Your task to perform on an android device: uninstall "LinkedIn" Image 0: 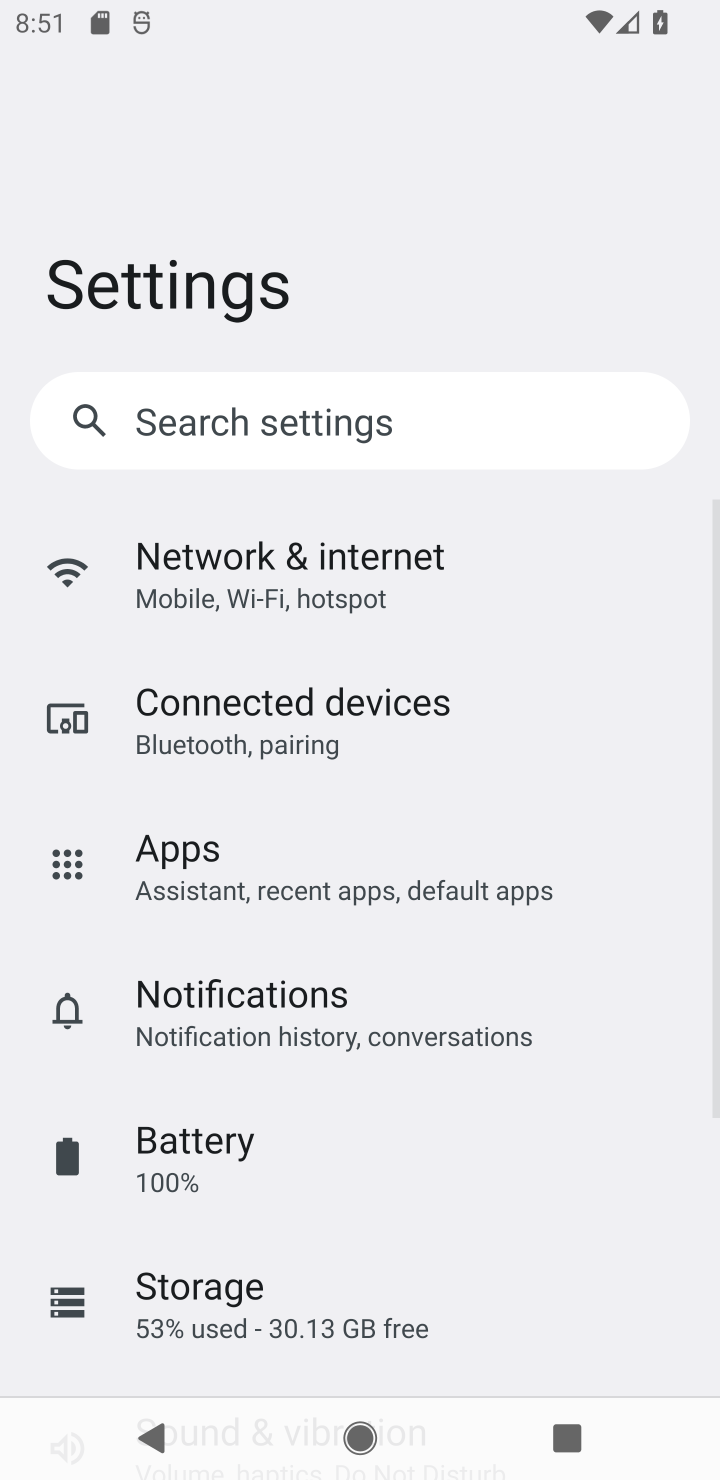
Step 0: press home button
Your task to perform on an android device: uninstall "LinkedIn" Image 1: 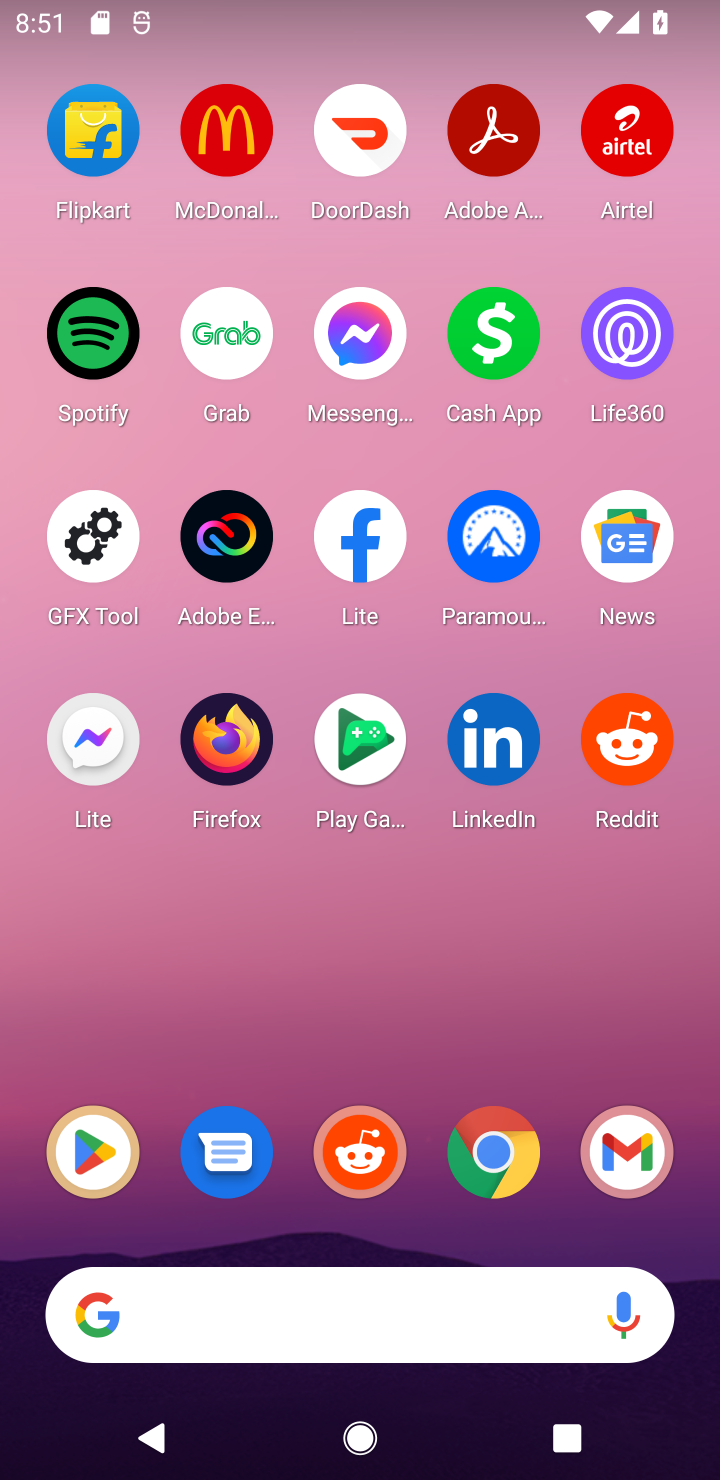
Step 1: click (128, 1176)
Your task to perform on an android device: uninstall "LinkedIn" Image 2: 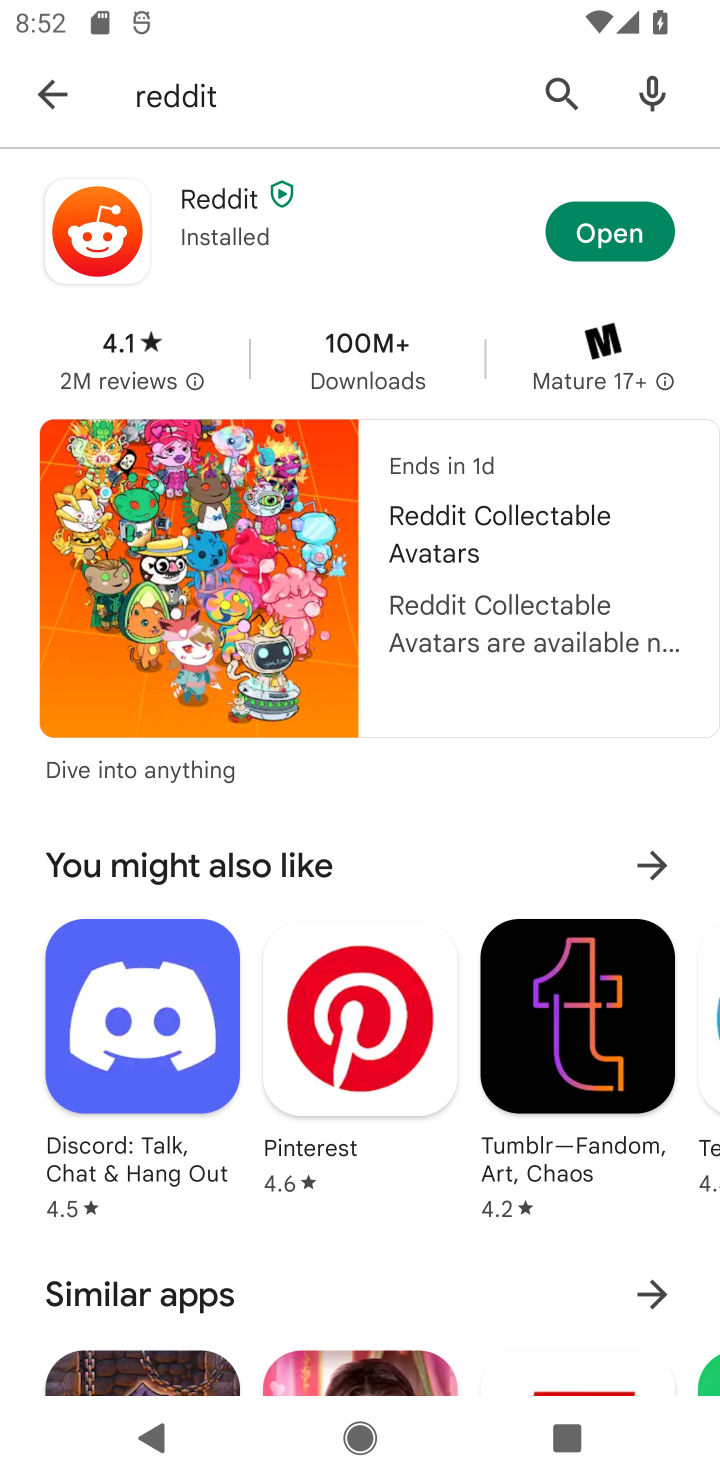
Step 2: click (62, 90)
Your task to perform on an android device: uninstall "LinkedIn" Image 3: 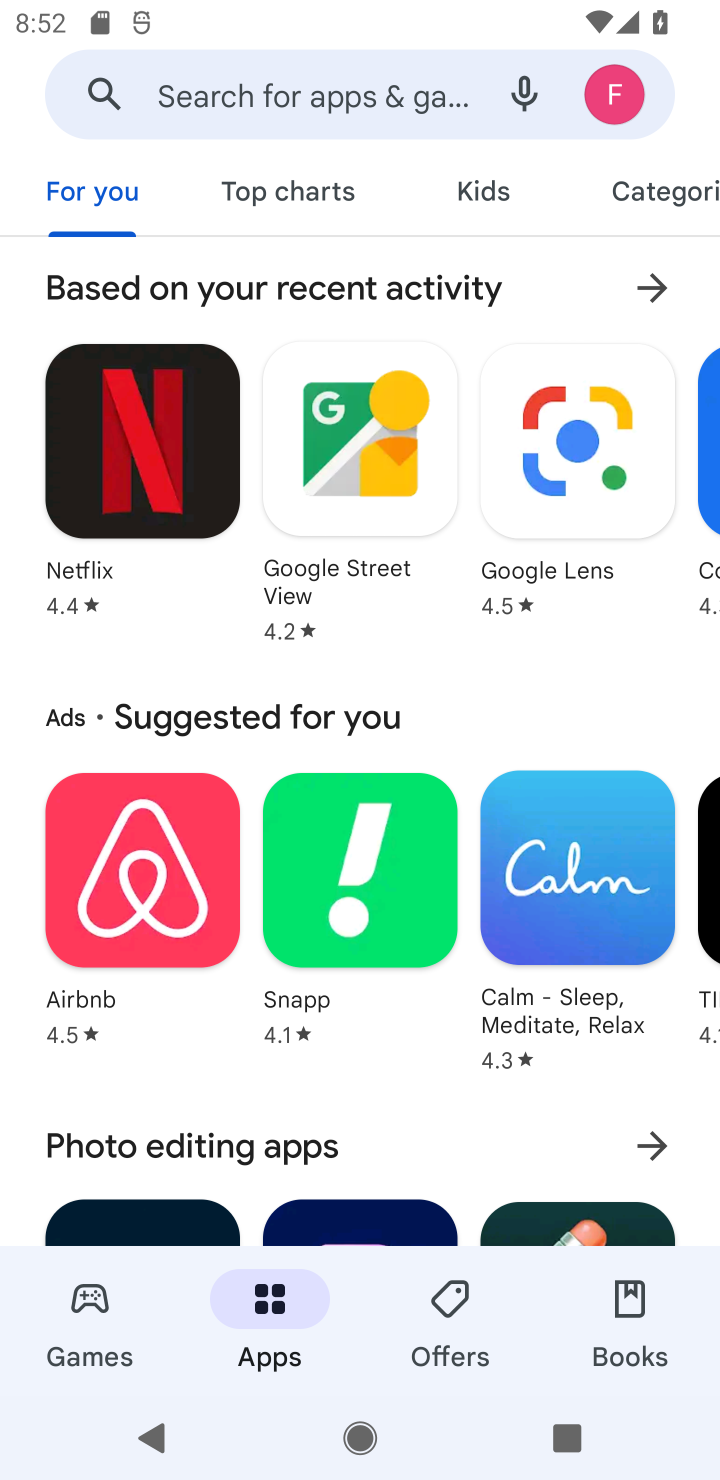
Step 3: click (298, 100)
Your task to perform on an android device: uninstall "LinkedIn" Image 4: 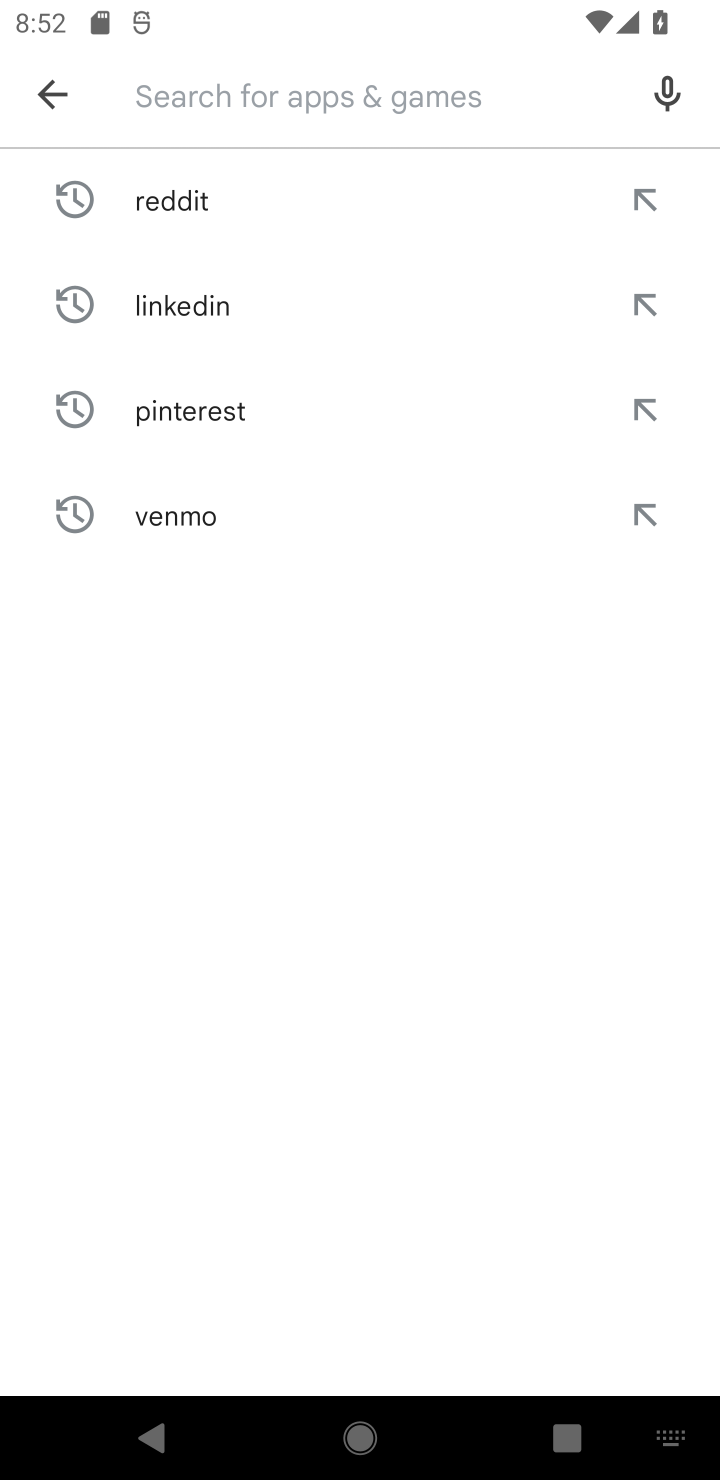
Step 4: type "LinkedIn"
Your task to perform on an android device: uninstall "LinkedIn" Image 5: 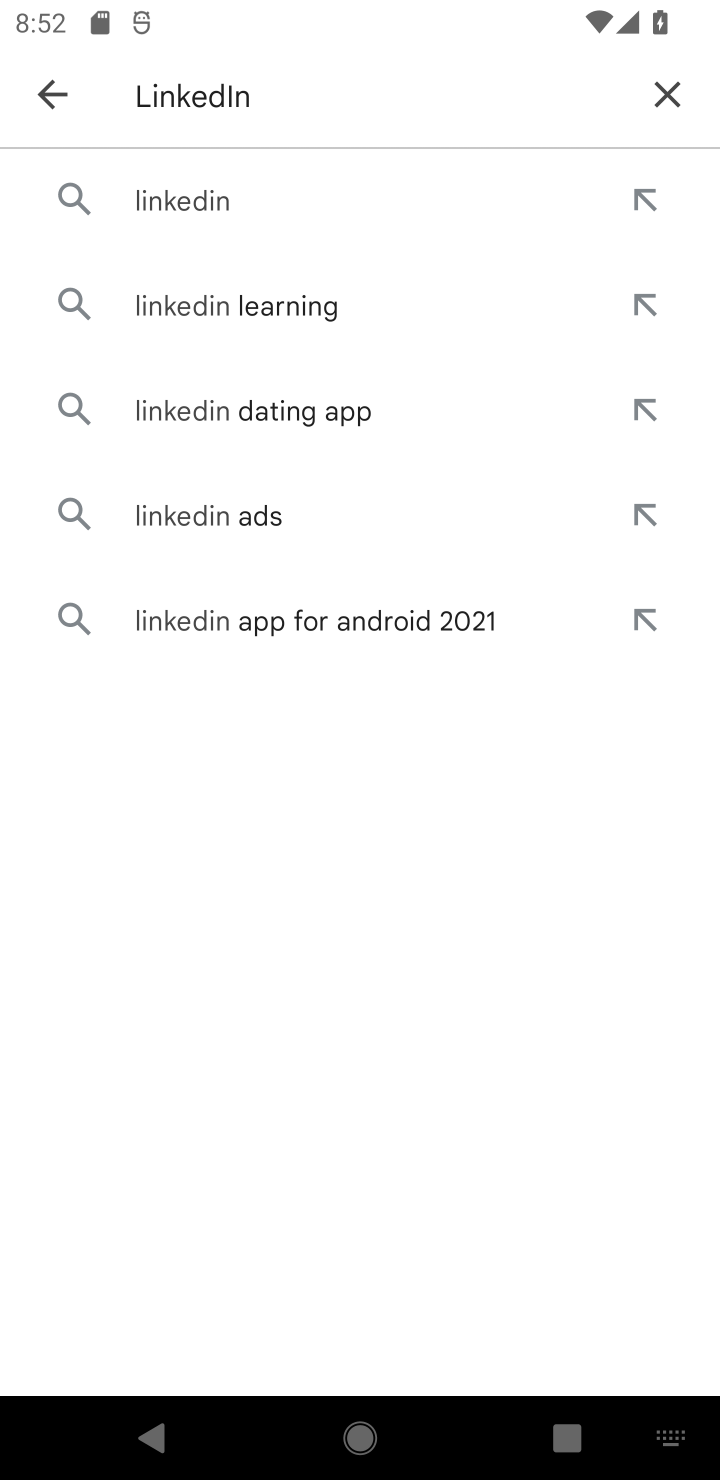
Step 5: click (213, 193)
Your task to perform on an android device: uninstall "LinkedIn" Image 6: 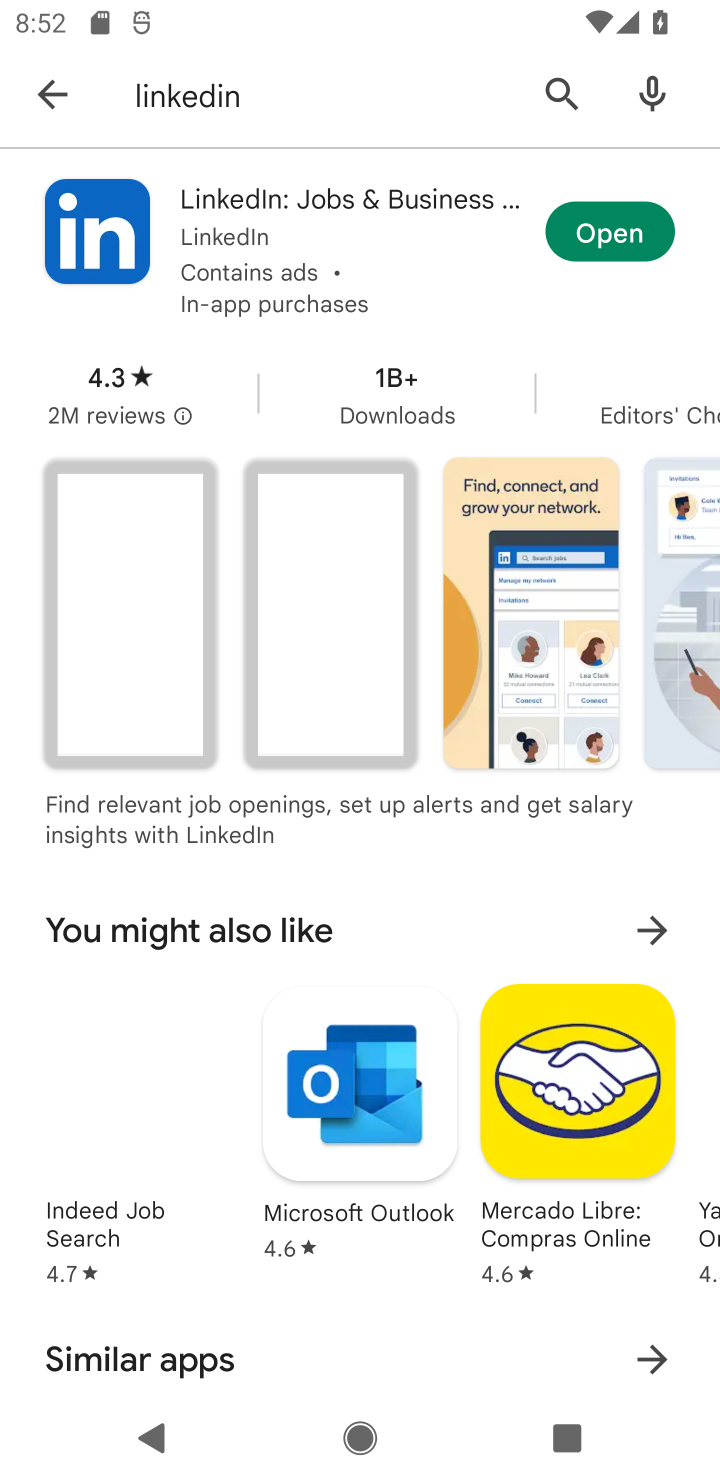
Step 6: click (195, 223)
Your task to perform on an android device: uninstall "LinkedIn" Image 7: 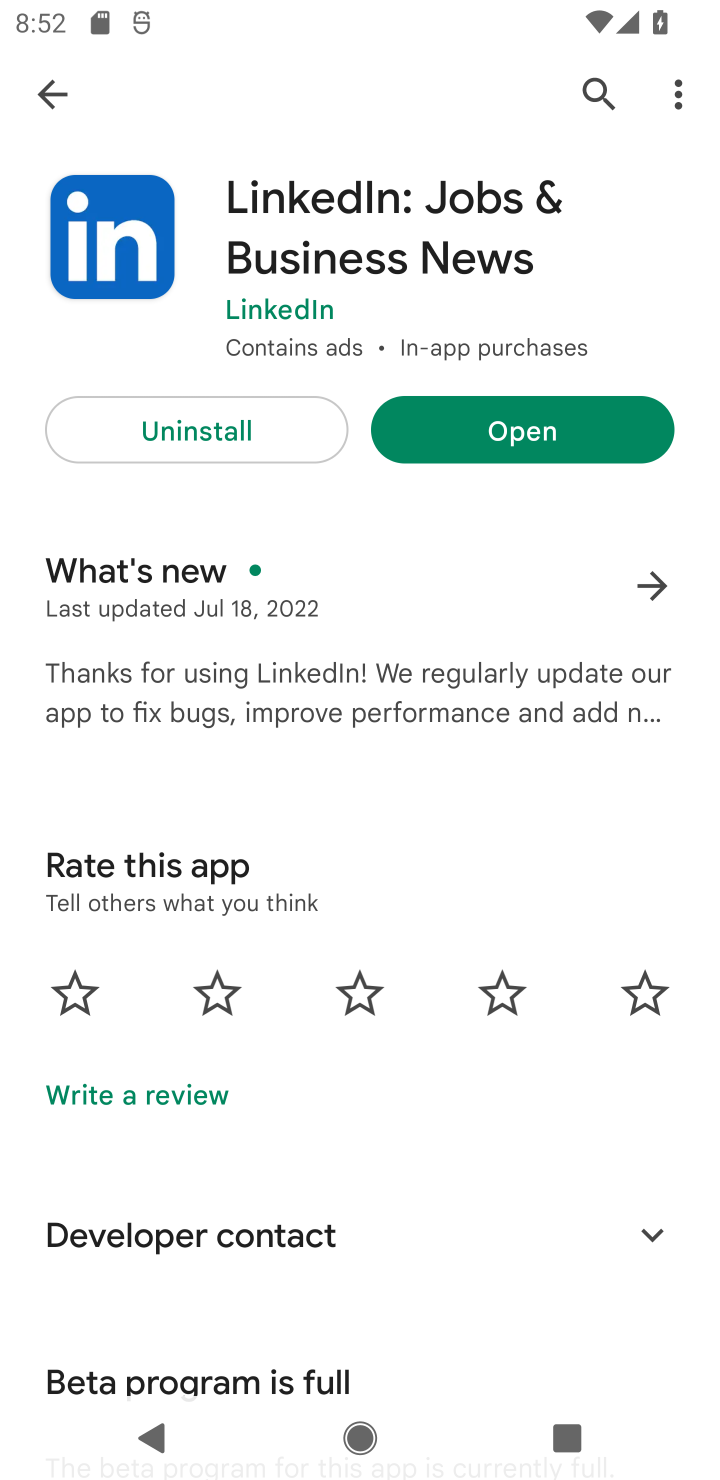
Step 7: click (183, 431)
Your task to perform on an android device: uninstall "LinkedIn" Image 8: 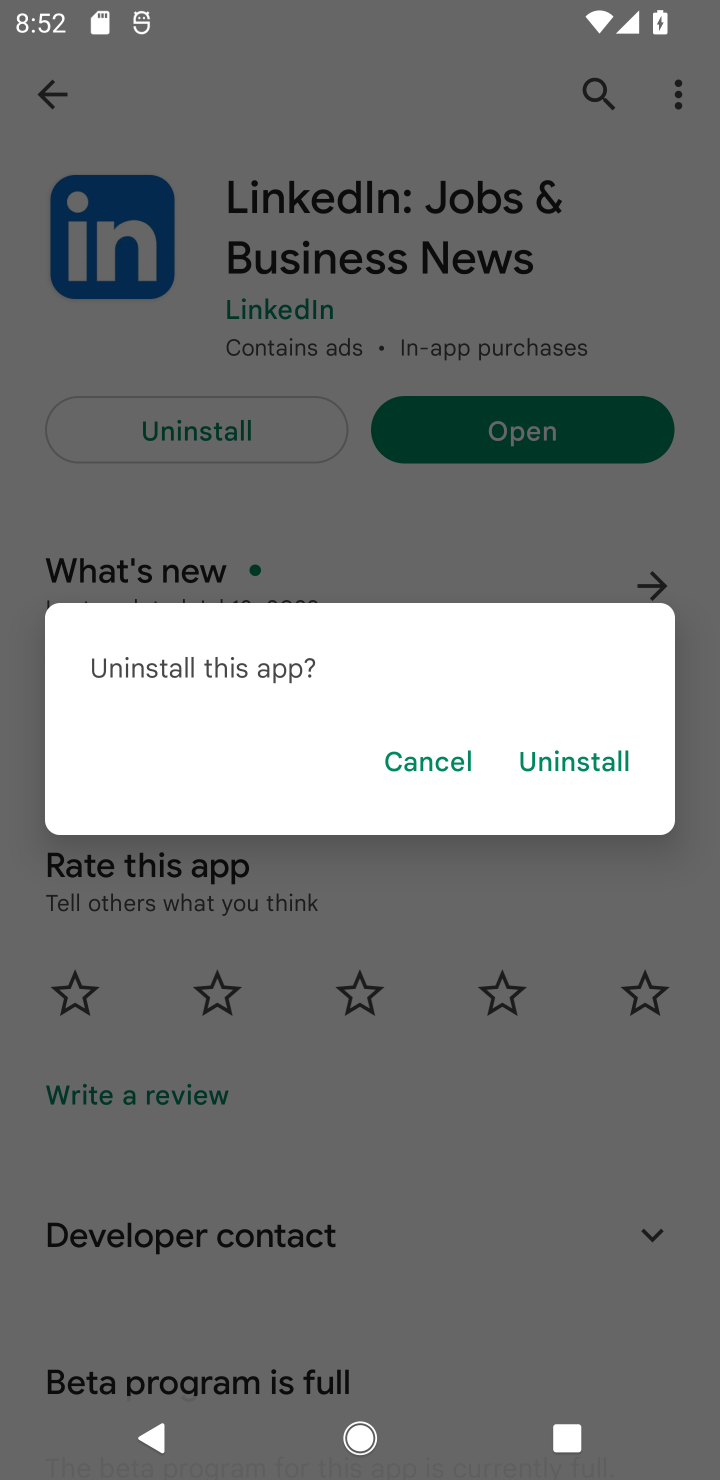
Step 8: click (591, 747)
Your task to perform on an android device: uninstall "LinkedIn" Image 9: 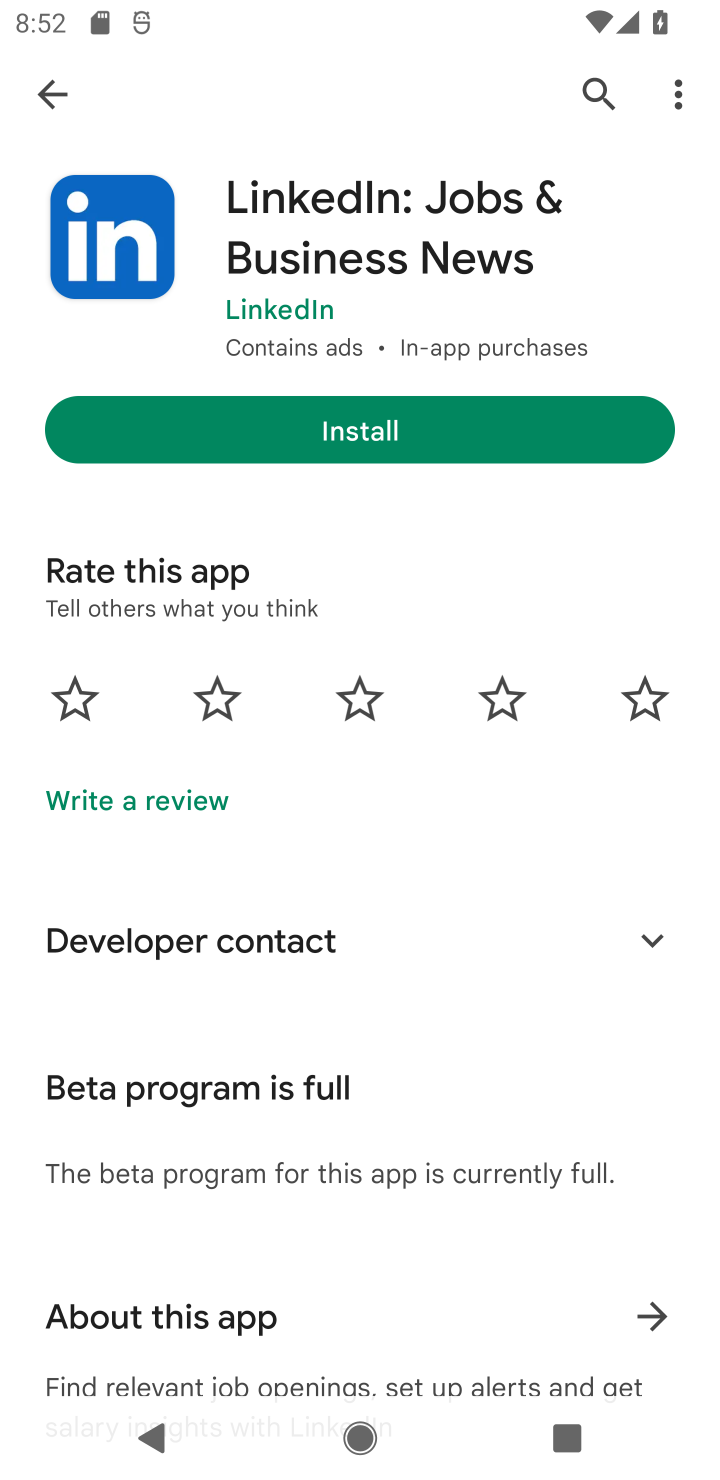
Step 9: task complete